Your task to perform on an android device: What's on my calendar tomorrow? Image 0: 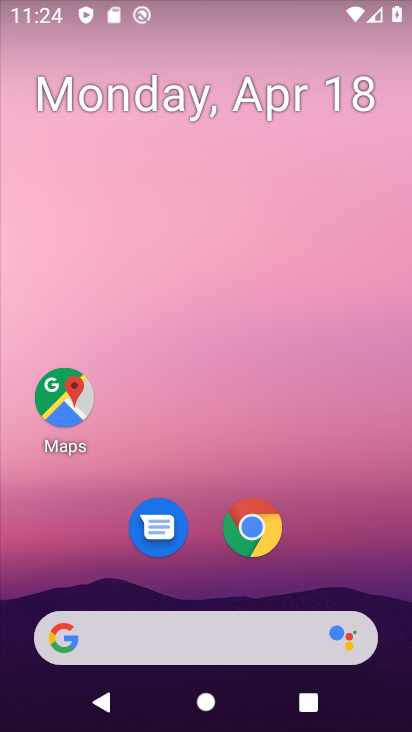
Step 0: drag from (207, 621) to (366, 2)
Your task to perform on an android device: What's on my calendar tomorrow? Image 1: 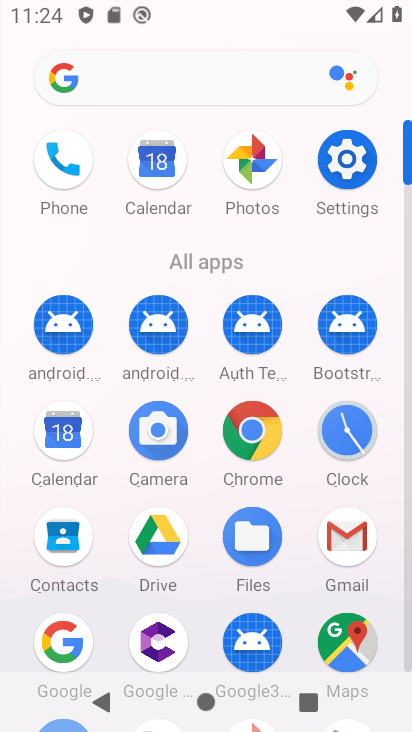
Step 1: click (47, 426)
Your task to perform on an android device: What's on my calendar tomorrow? Image 2: 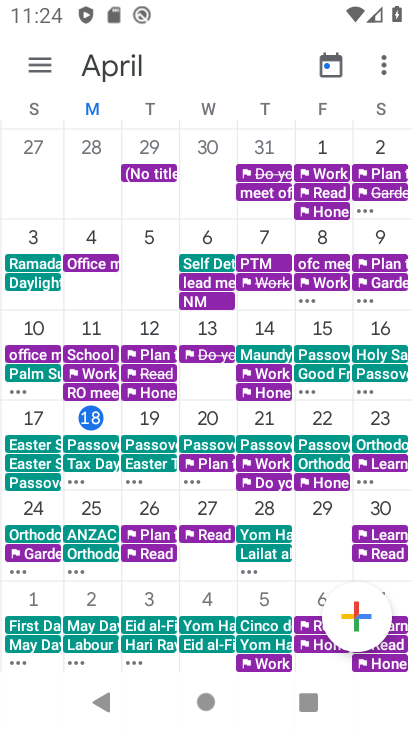
Step 2: click (205, 409)
Your task to perform on an android device: What's on my calendar tomorrow? Image 3: 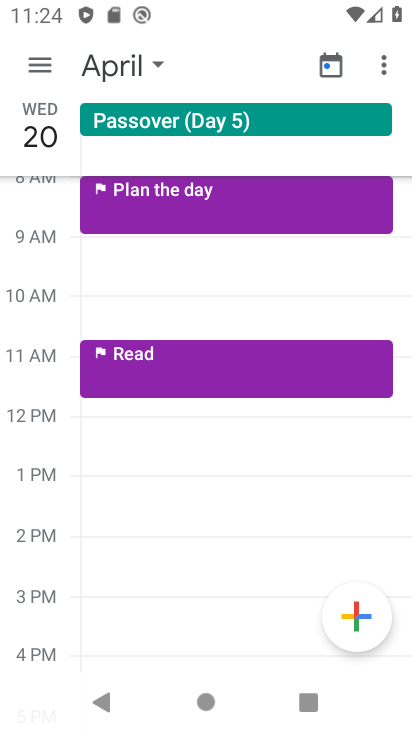
Step 3: task complete